Your task to perform on an android device: turn off location Image 0: 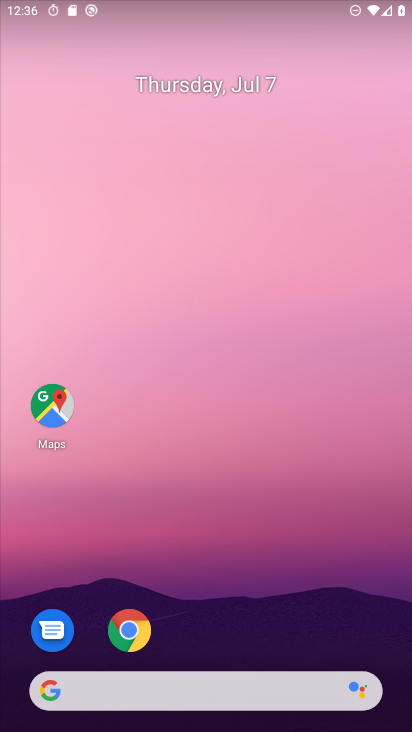
Step 0: drag from (203, 635) to (226, 133)
Your task to perform on an android device: turn off location Image 1: 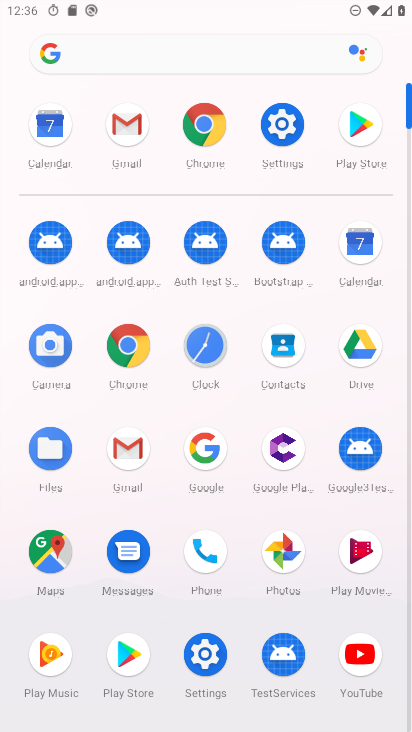
Step 1: click (210, 656)
Your task to perform on an android device: turn off location Image 2: 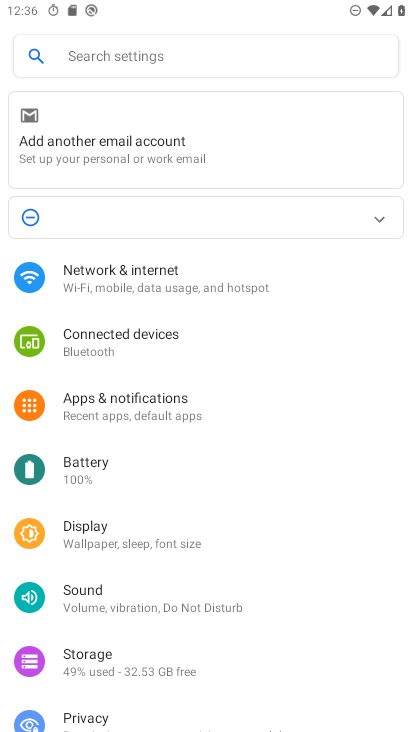
Step 2: drag from (109, 676) to (154, 444)
Your task to perform on an android device: turn off location Image 3: 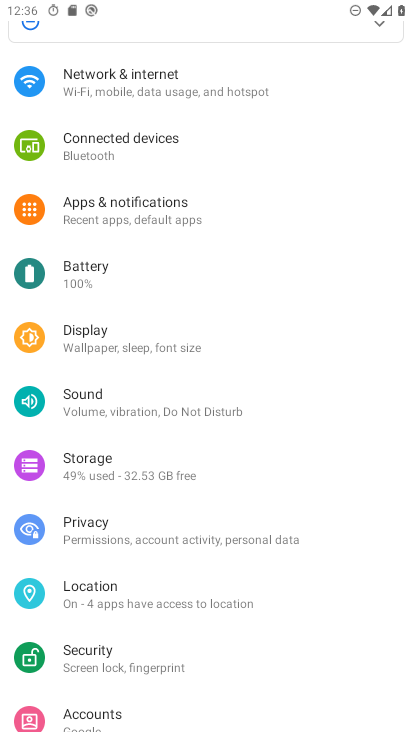
Step 3: click (97, 593)
Your task to perform on an android device: turn off location Image 4: 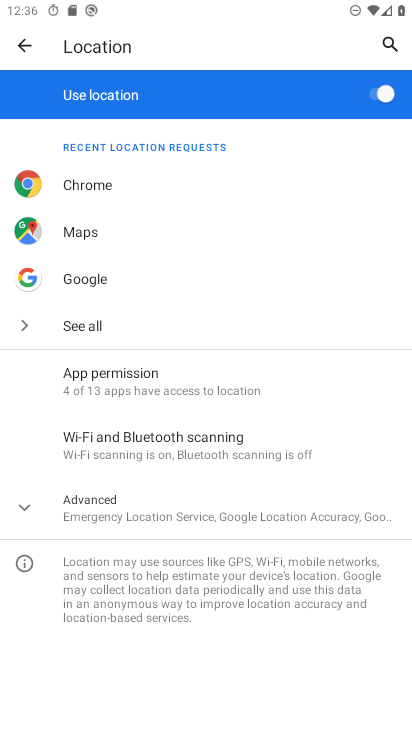
Step 4: click (367, 101)
Your task to perform on an android device: turn off location Image 5: 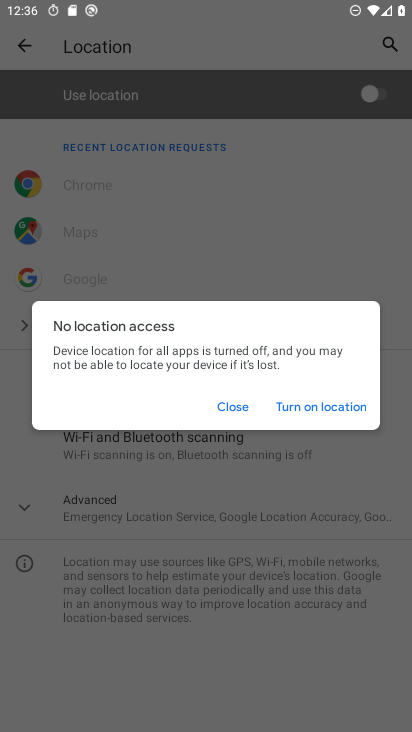
Step 5: click (229, 406)
Your task to perform on an android device: turn off location Image 6: 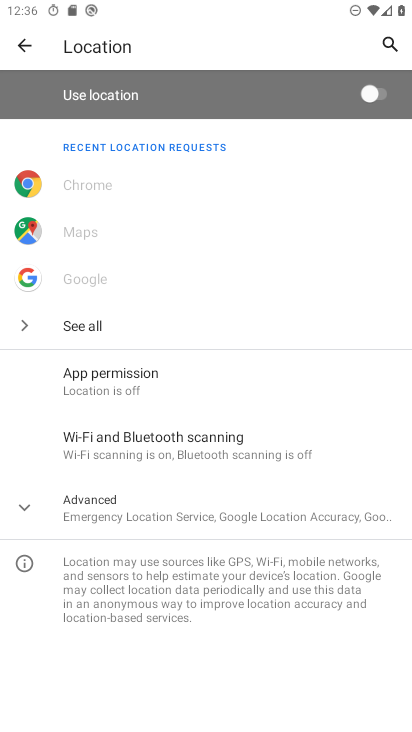
Step 6: task complete